Your task to perform on an android device: change keyboard looks Image 0: 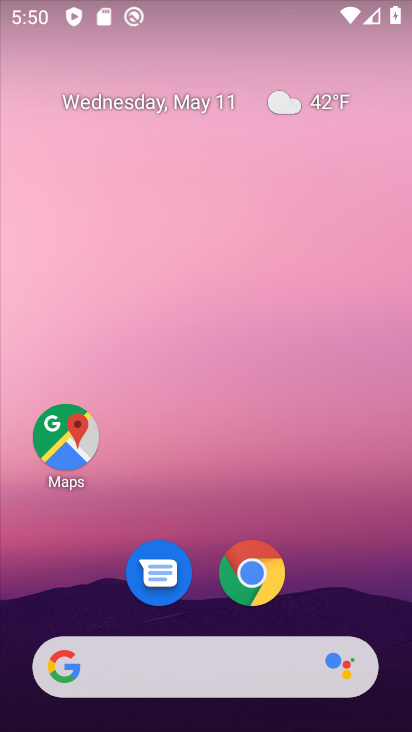
Step 0: click (196, 61)
Your task to perform on an android device: change keyboard looks Image 1: 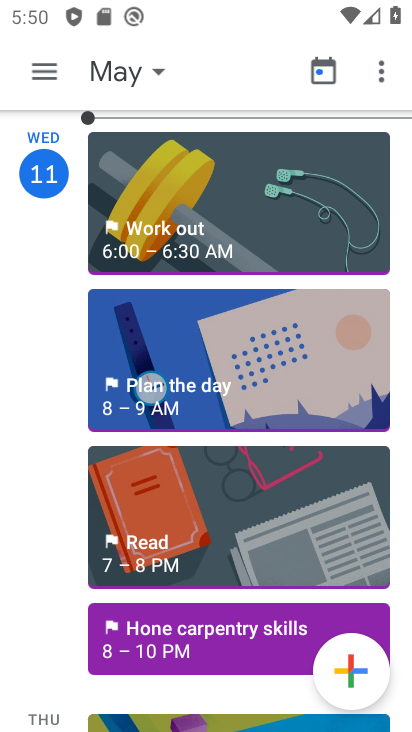
Step 1: press home button
Your task to perform on an android device: change keyboard looks Image 2: 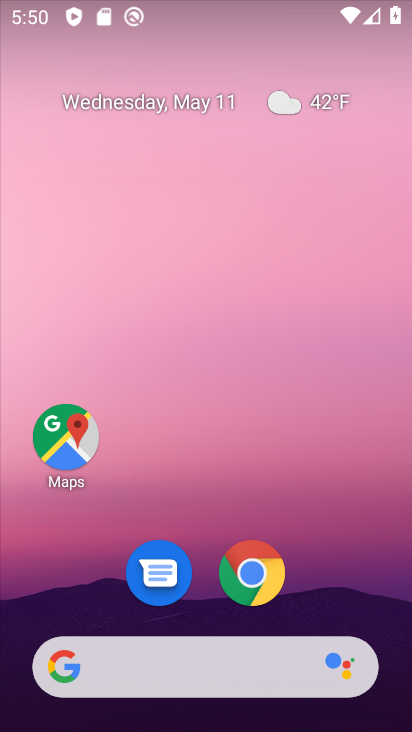
Step 2: drag from (305, 593) to (266, 274)
Your task to perform on an android device: change keyboard looks Image 3: 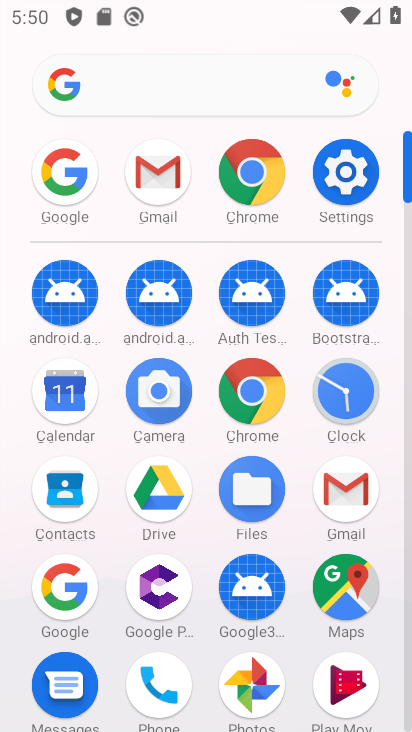
Step 3: click (348, 193)
Your task to perform on an android device: change keyboard looks Image 4: 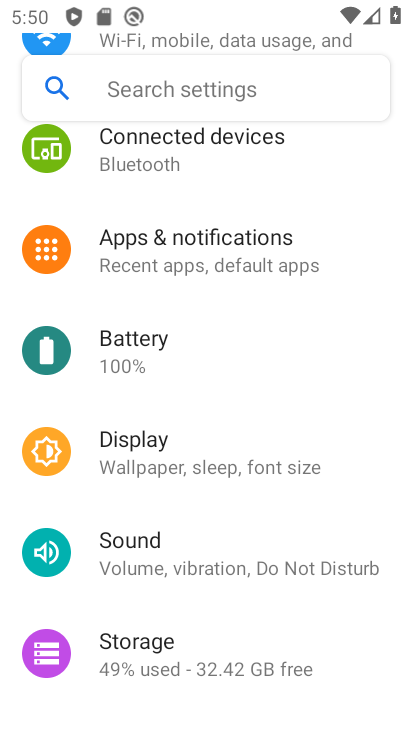
Step 4: drag from (218, 225) to (198, 613)
Your task to perform on an android device: change keyboard looks Image 5: 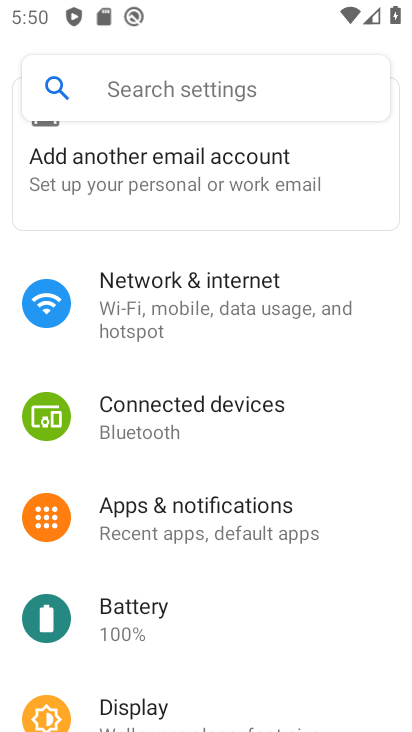
Step 5: drag from (164, 340) to (160, 481)
Your task to perform on an android device: change keyboard looks Image 6: 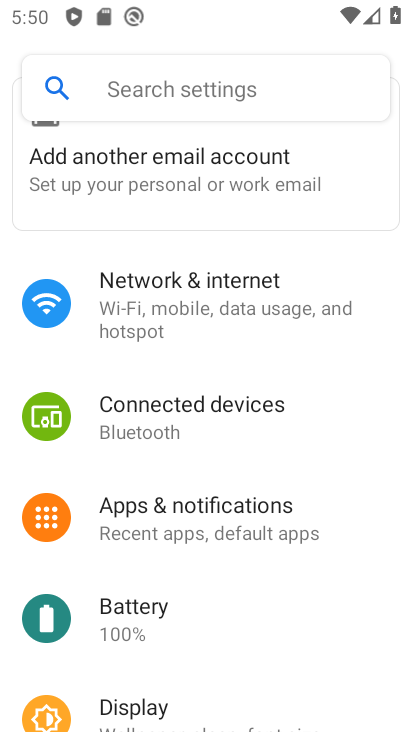
Step 6: drag from (174, 653) to (204, 346)
Your task to perform on an android device: change keyboard looks Image 7: 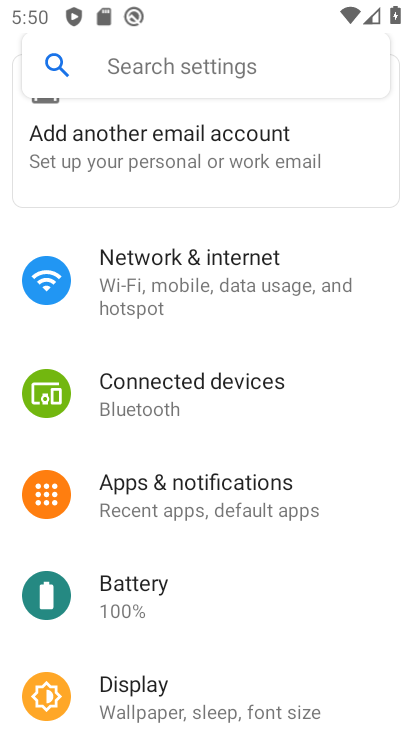
Step 7: drag from (216, 604) to (205, 250)
Your task to perform on an android device: change keyboard looks Image 8: 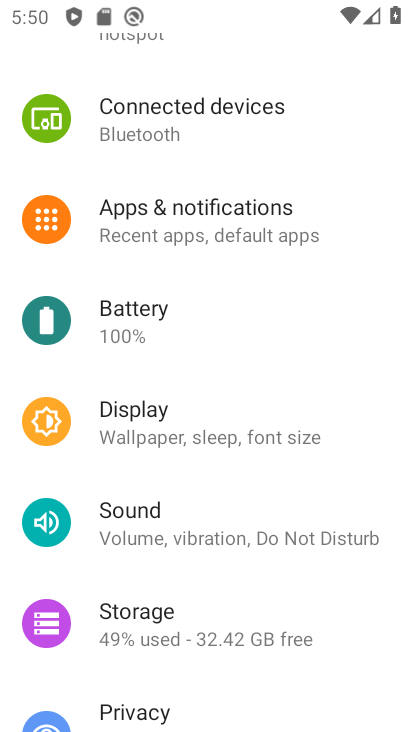
Step 8: drag from (185, 390) to (190, 239)
Your task to perform on an android device: change keyboard looks Image 9: 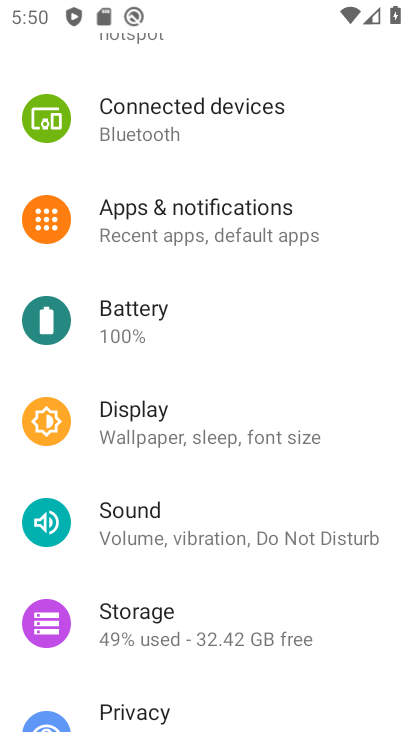
Step 9: drag from (178, 575) to (189, 301)
Your task to perform on an android device: change keyboard looks Image 10: 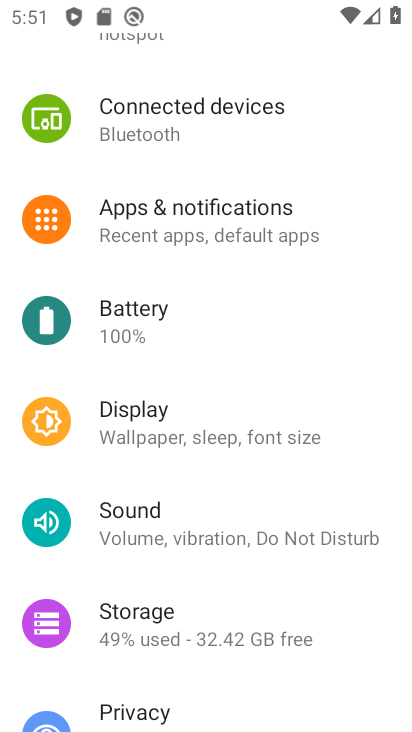
Step 10: drag from (197, 623) to (205, 284)
Your task to perform on an android device: change keyboard looks Image 11: 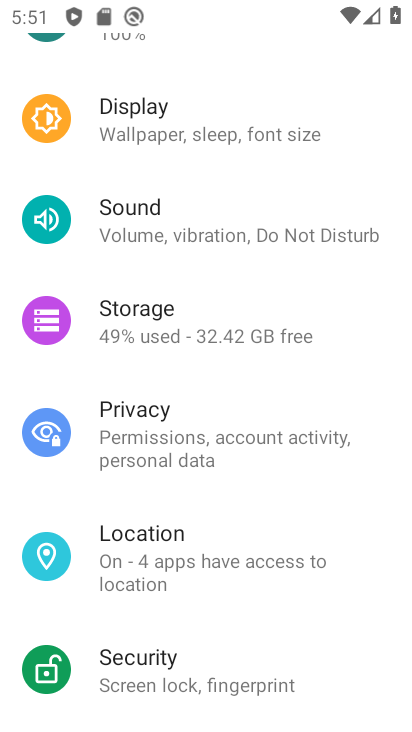
Step 11: drag from (192, 605) to (191, 314)
Your task to perform on an android device: change keyboard looks Image 12: 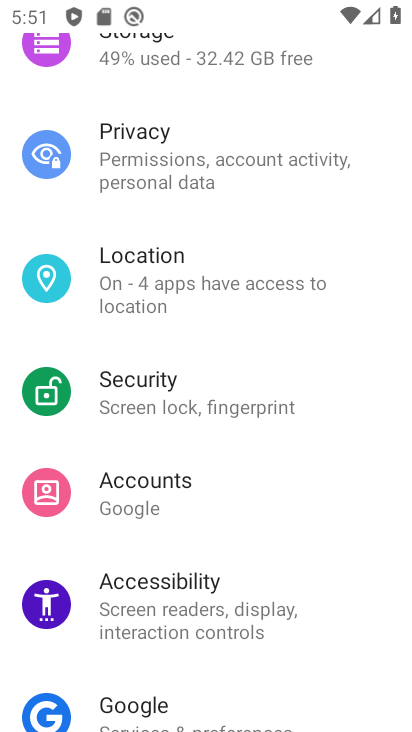
Step 12: drag from (203, 324) to (211, 204)
Your task to perform on an android device: change keyboard looks Image 13: 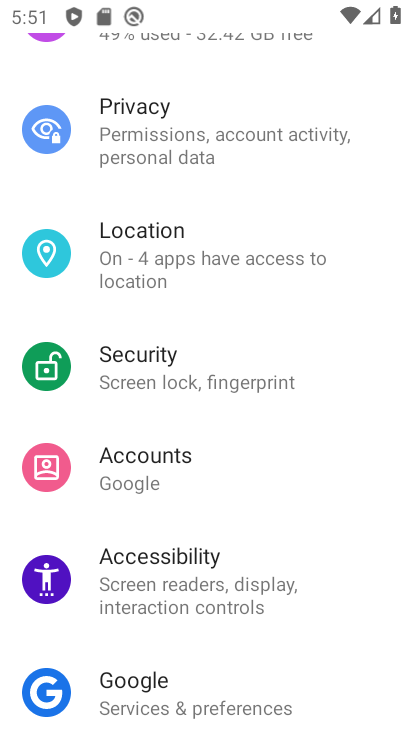
Step 13: drag from (198, 640) to (197, 282)
Your task to perform on an android device: change keyboard looks Image 14: 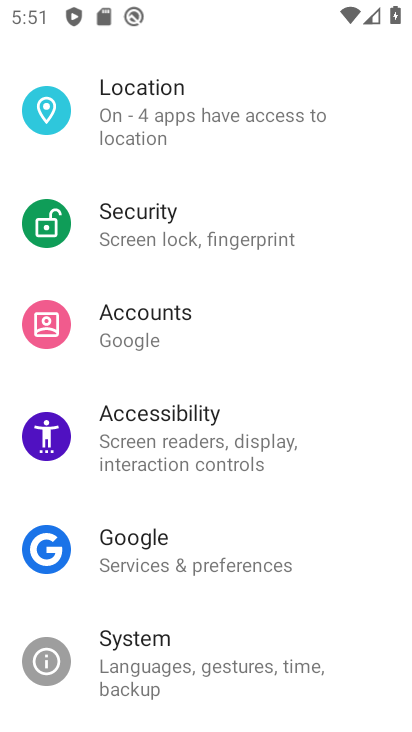
Step 14: click (135, 671)
Your task to perform on an android device: change keyboard looks Image 15: 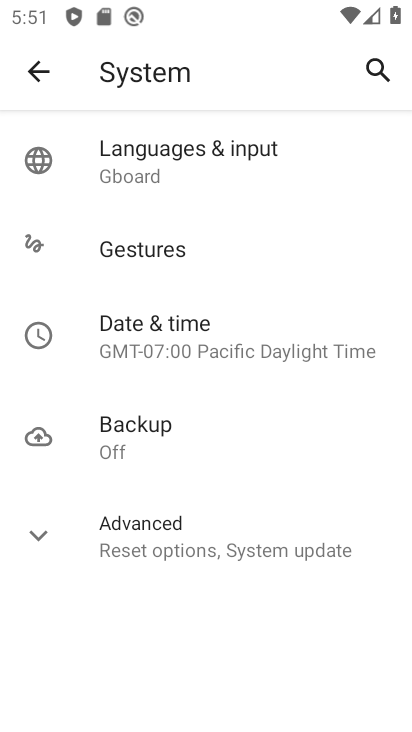
Step 15: click (138, 154)
Your task to perform on an android device: change keyboard looks Image 16: 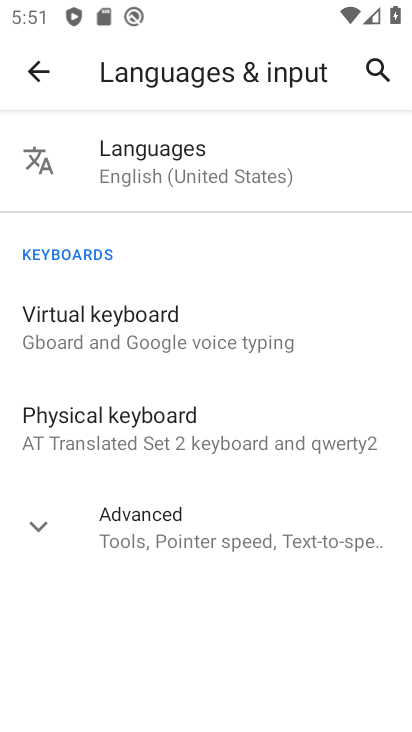
Step 16: click (103, 330)
Your task to perform on an android device: change keyboard looks Image 17: 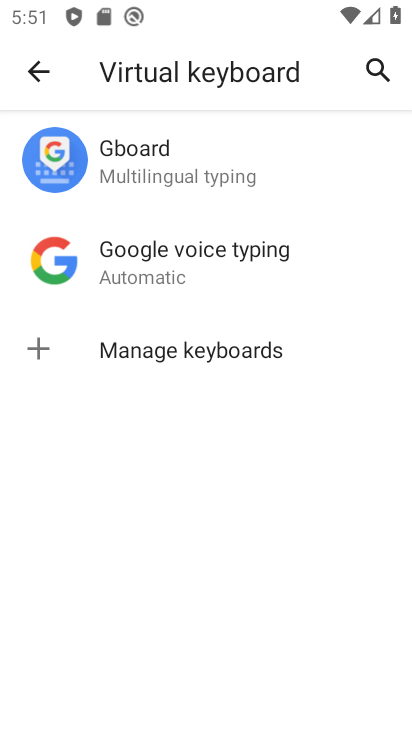
Step 17: click (114, 167)
Your task to perform on an android device: change keyboard looks Image 18: 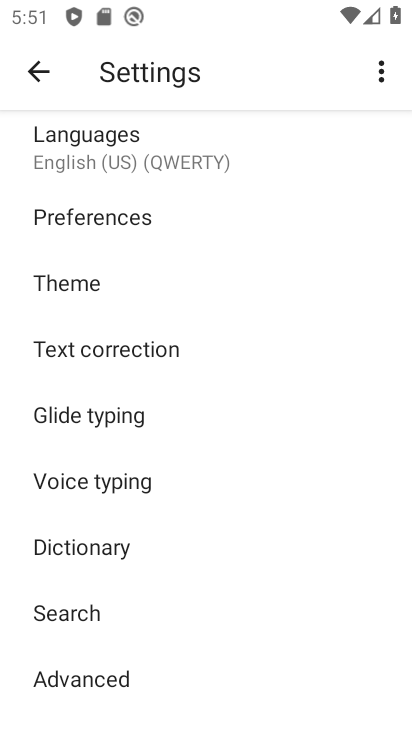
Step 18: click (92, 276)
Your task to perform on an android device: change keyboard looks Image 19: 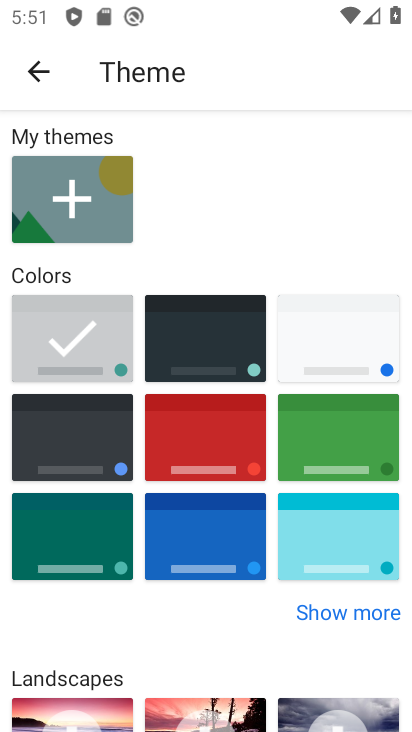
Step 19: click (190, 323)
Your task to perform on an android device: change keyboard looks Image 20: 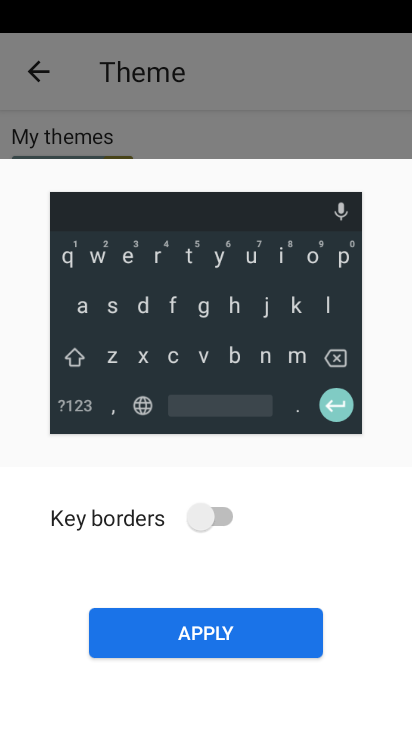
Step 20: click (187, 626)
Your task to perform on an android device: change keyboard looks Image 21: 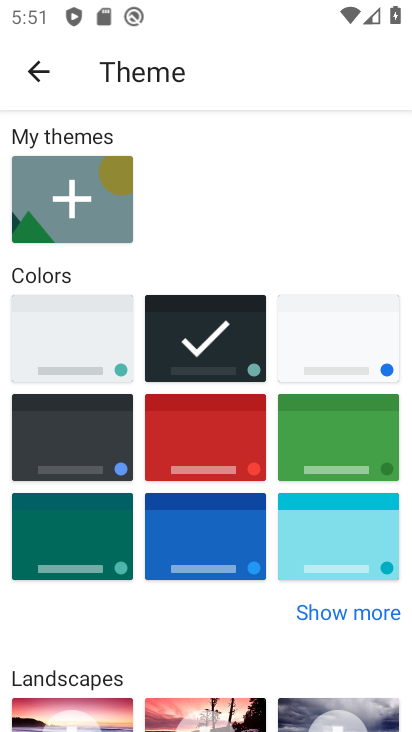
Step 21: task complete